Your task to perform on an android device: delete location history Image 0: 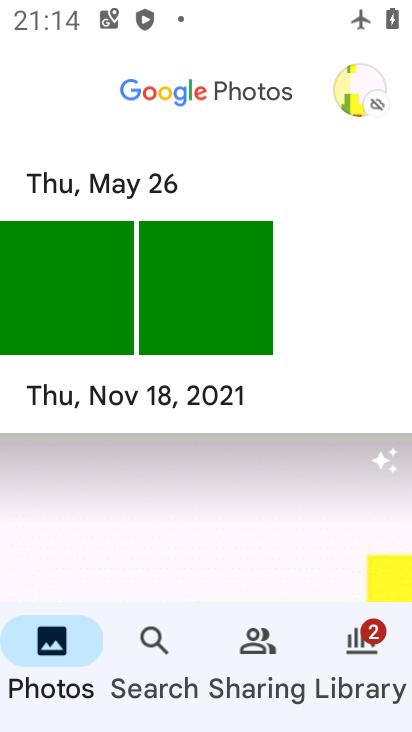
Step 0: press home button
Your task to perform on an android device: delete location history Image 1: 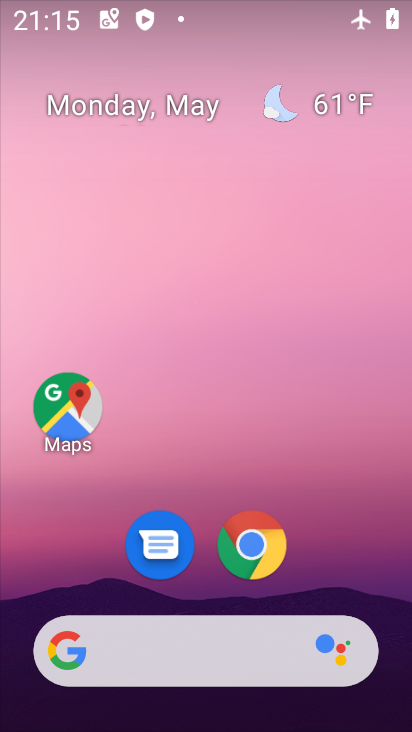
Step 1: drag from (222, 635) to (178, 126)
Your task to perform on an android device: delete location history Image 2: 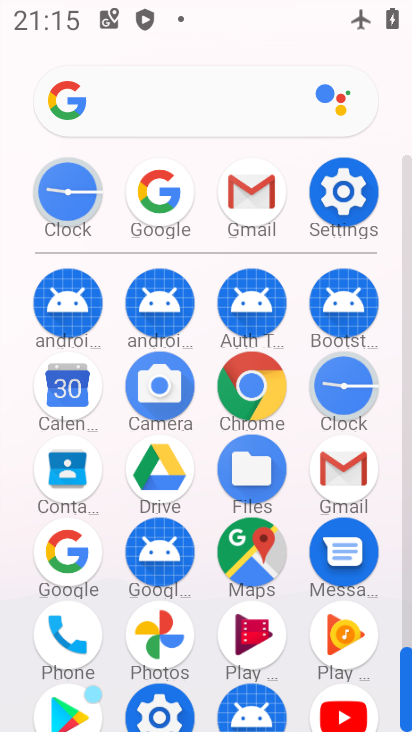
Step 2: click (247, 548)
Your task to perform on an android device: delete location history Image 3: 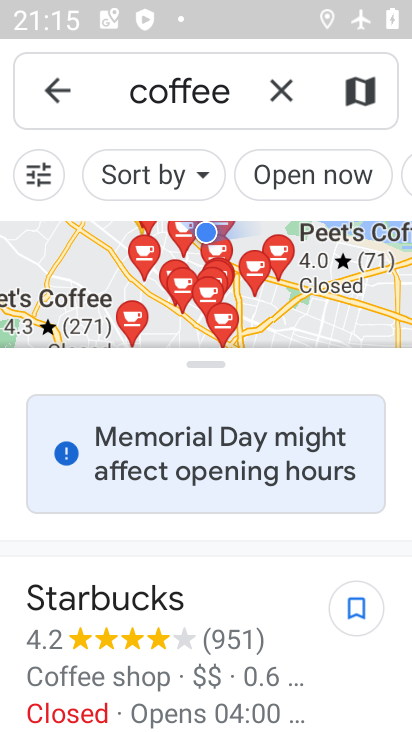
Step 3: click (46, 81)
Your task to perform on an android device: delete location history Image 4: 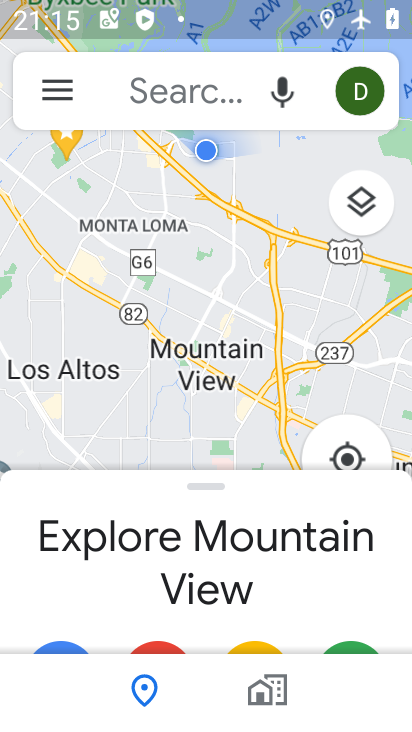
Step 4: click (51, 92)
Your task to perform on an android device: delete location history Image 5: 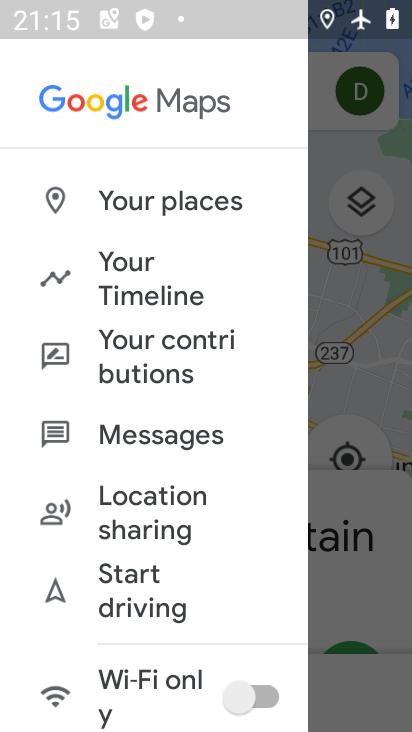
Step 5: click (135, 289)
Your task to perform on an android device: delete location history Image 6: 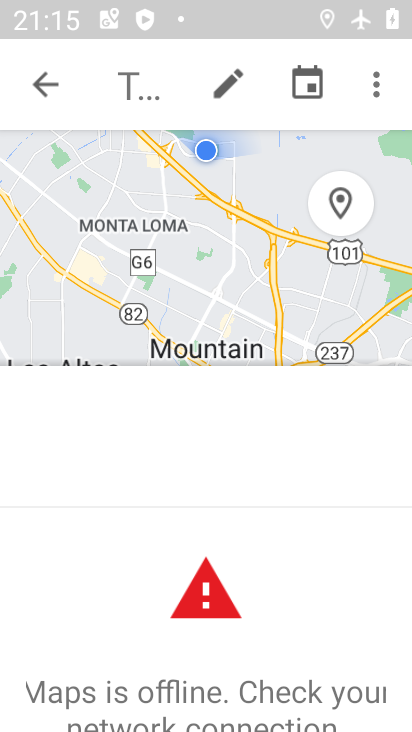
Step 6: click (370, 102)
Your task to perform on an android device: delete location history Image 7: 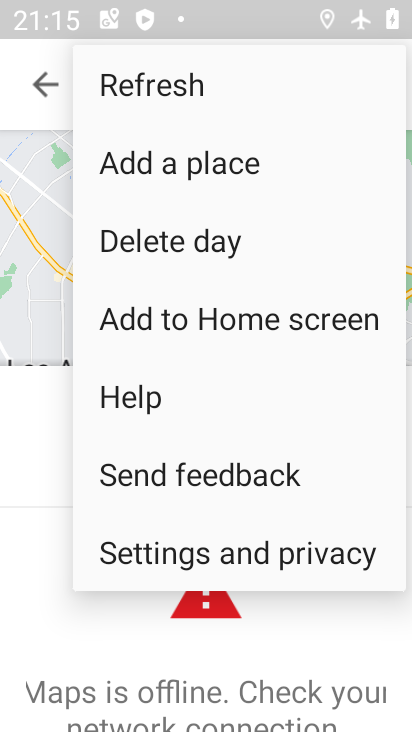
Step 7: click (260, 553)
Your task to perform on an android device: delete location history Image 8: 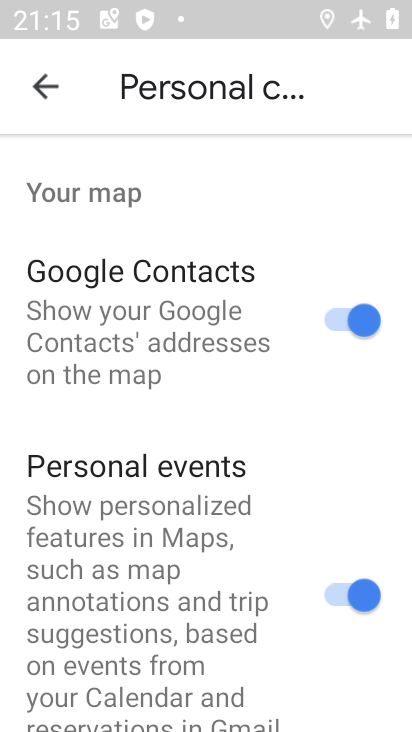
Step 8: drag from (191, 585) to (192, 211)
Your task to perform on an android device: delete location history Image 9: 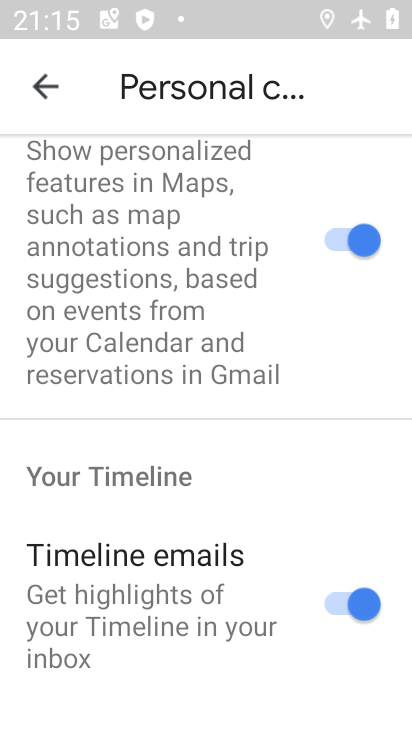
Step 9: drag from (271, 646) to (250, 20)
Your task to perform on an android device: delete location history Image 10: 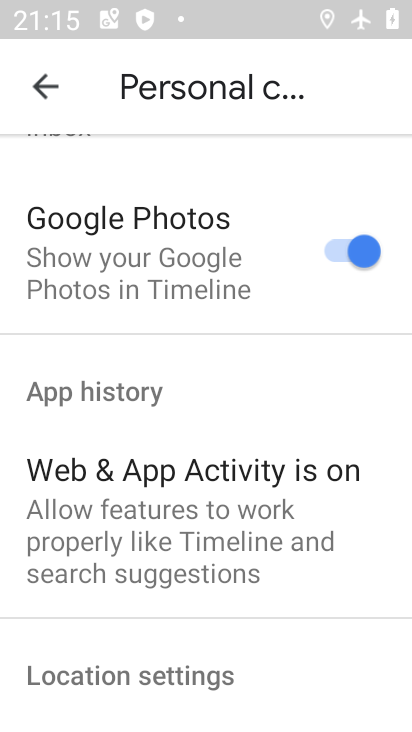
Step 10: drag from (166, 586) to (120, 1)
Your task to perform on an android device: delete location history Image 11: 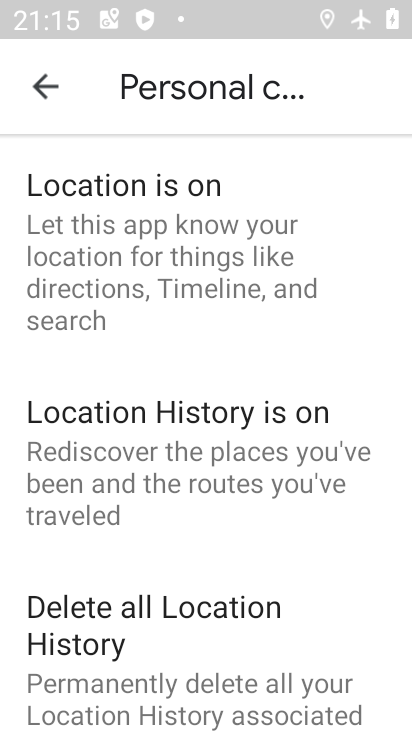
Step 11: click (185, 611)
Your task to perform on an android device: delete location history Image 12: 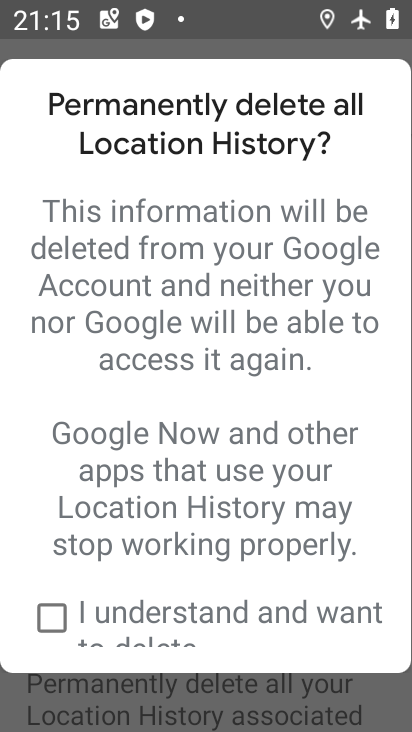
Step 12: click (46, 613)
Your task to perform on an android device: delete location history Image 13: 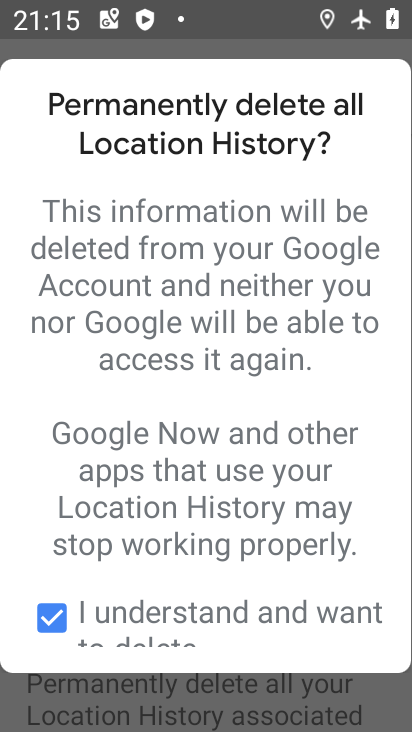
Step 13: task complete